Your task to perform on an android device: Open Youtube and go to "Your channel" Image 0: 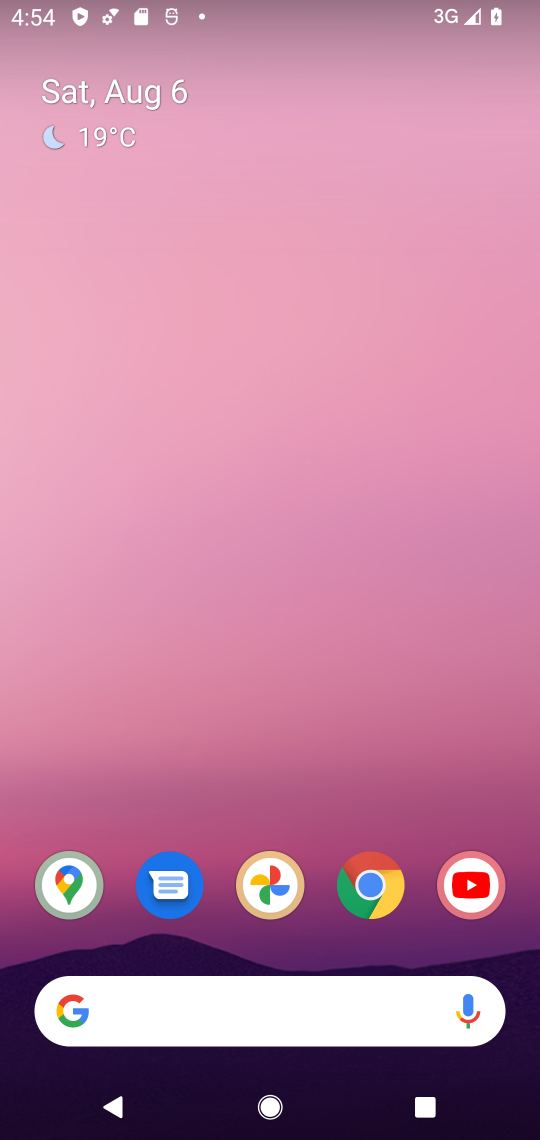
Step 0: drag from (399, 709) to (154, 22)
Your task to perform on an android device: Open Youtube and go to "Your channel" Image 1: 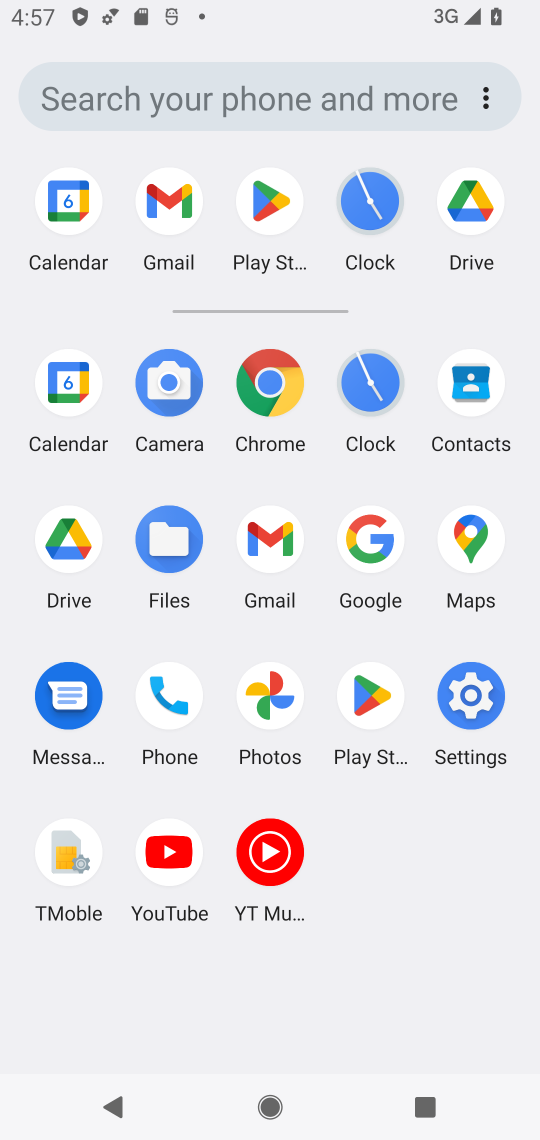
Step 1: click (165, 862)
Your task to perform on an android device: Open Youtube and go to "Your channel" Image 2: 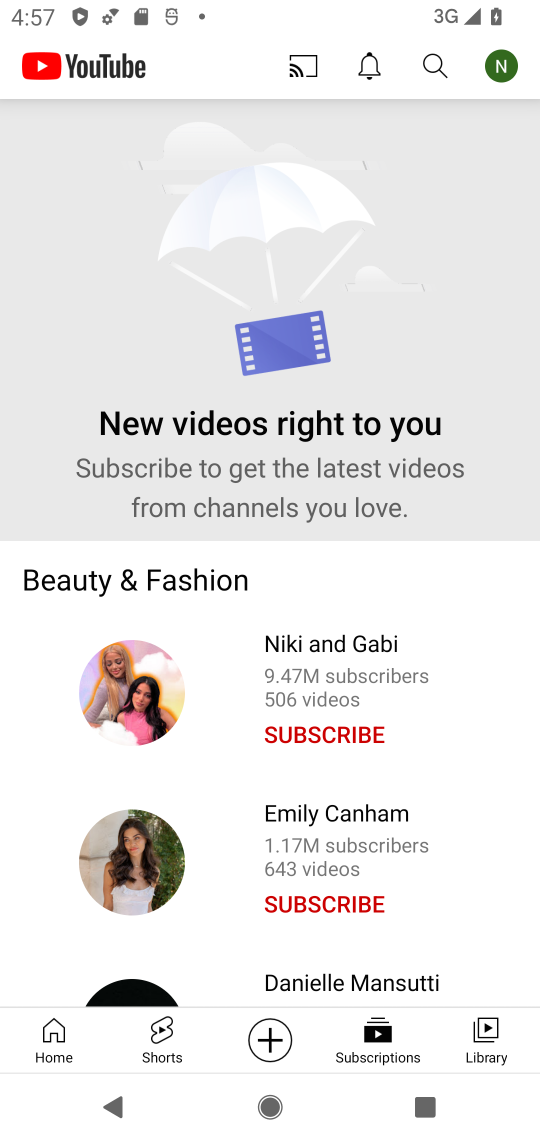
Step 2: click (505, 58)
Your task to perform on an android device: Open Youtube and go to "Your channel" Image 3: 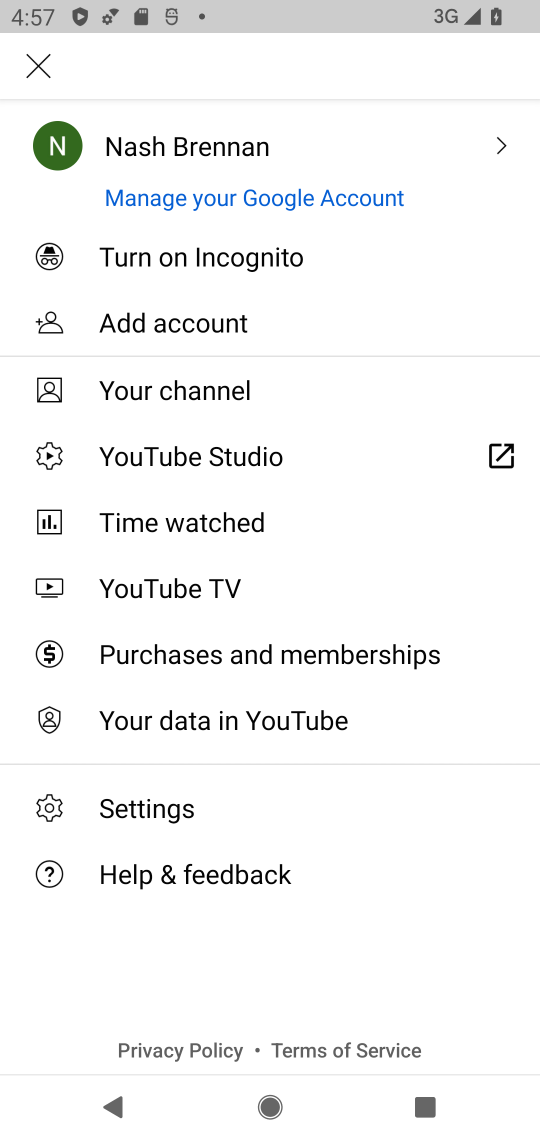
Step 3: click (135, 392)
Your task to perform on an android device: Open Youtube and go to "Your channel" Image 4: 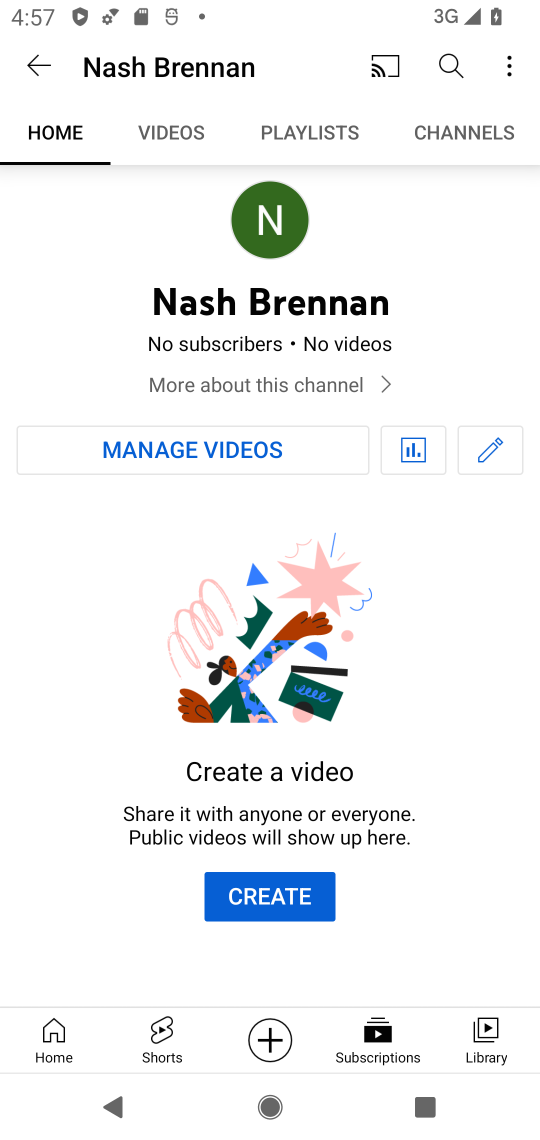
Step 4: task complete